Your task to perform on an android device: search for starred emails in the gmail app Image 0: 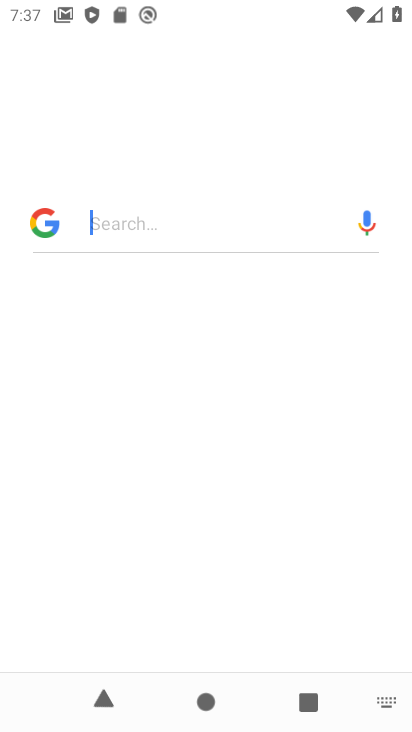
Step 0: press home button
Your task to perform on an android device: search for starred emails in the gmail app Image 1: 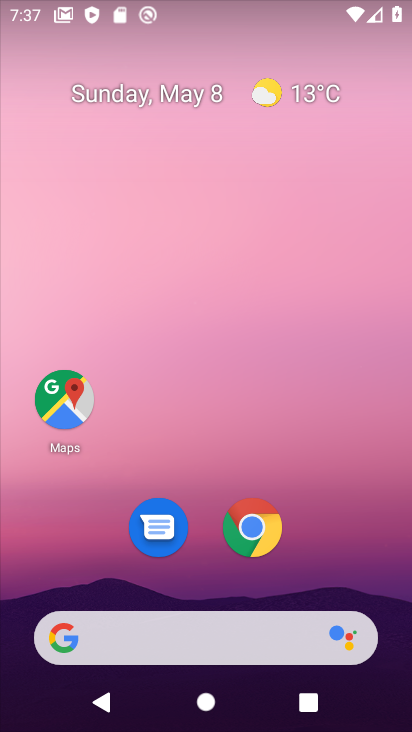
Step 1: drag from (373, 549) to (366, 173)
Your task to perform on an android device: search for starred emails in the gmail app Image 2: 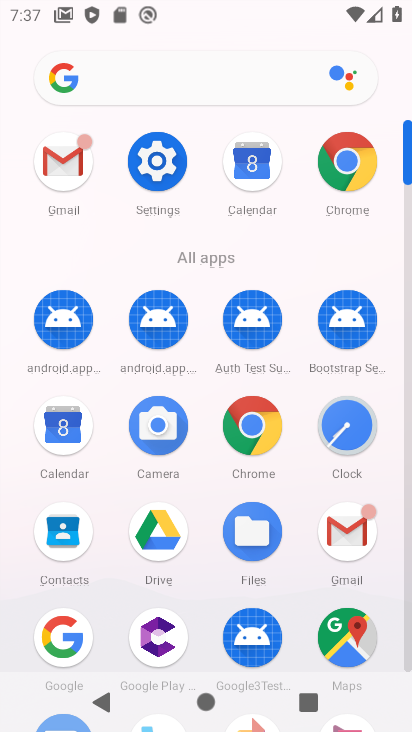
Step 2: click (32, 158)
Your task to perform on an android device: search for starred emails in the gmail app Image 3: 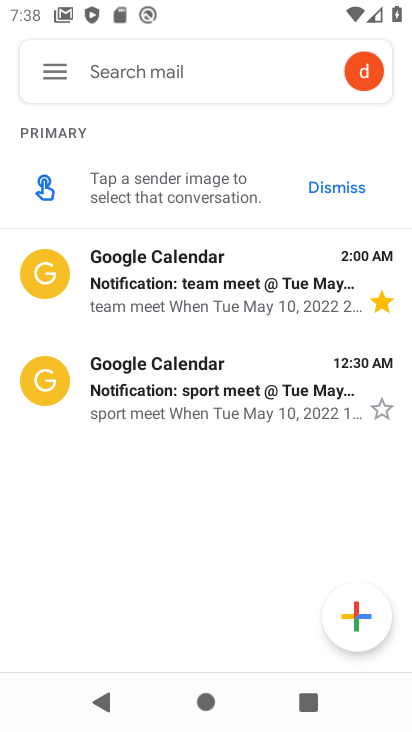
Step 3: click (154, 303)
Your task to perform on an android device: search for starred emails in the gmail app Image 4: 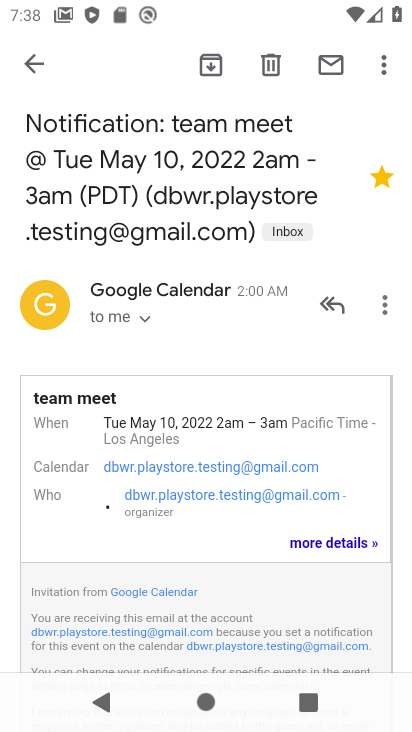
Step 4: task complete